Your task to perform on an android device: Open Google Chrome and open the bookmarks view Image 0: 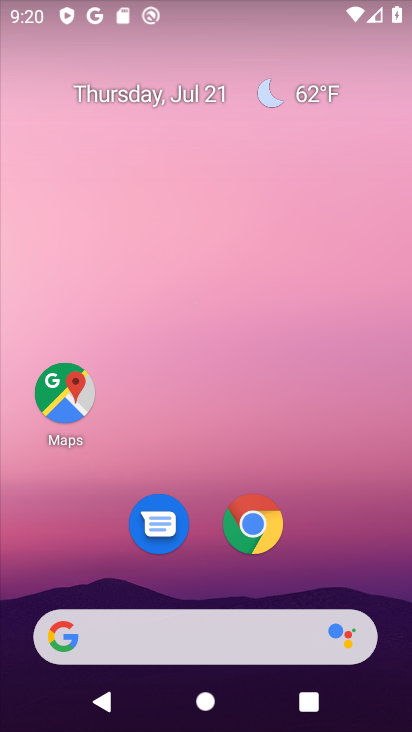
Step 0: press home button
Your task to perform on an android device: Open Google Chrome and open the bookmarks view Image 1: 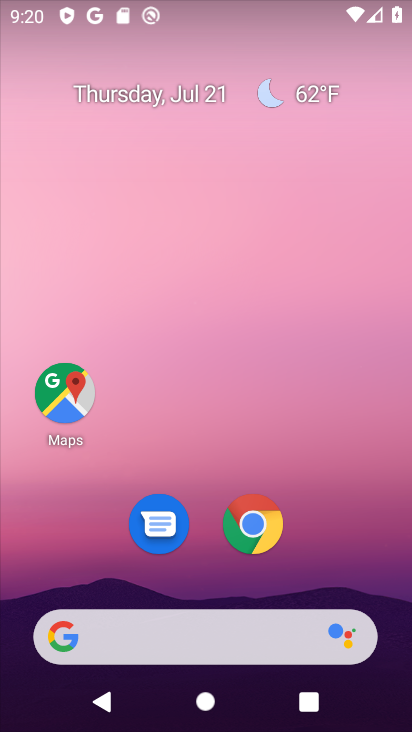
Step 1: click (250, 526)
Your task to perform on an android device: Open Google Chrome and open the bookmarks view Image 2: 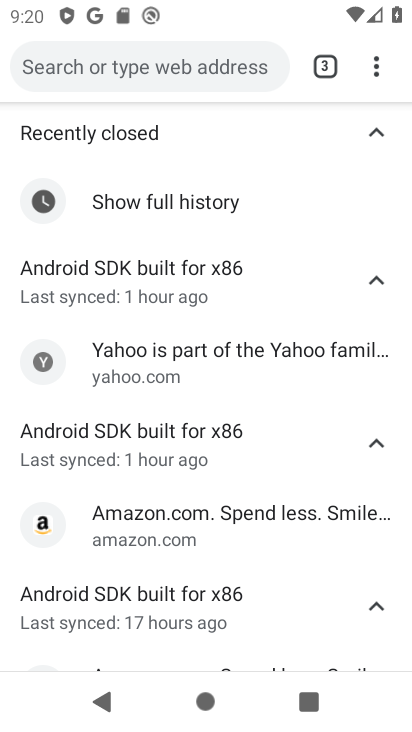
Step 2: task complete